Your task to perform on an android device: change notification settings in the gmail app Image 0: 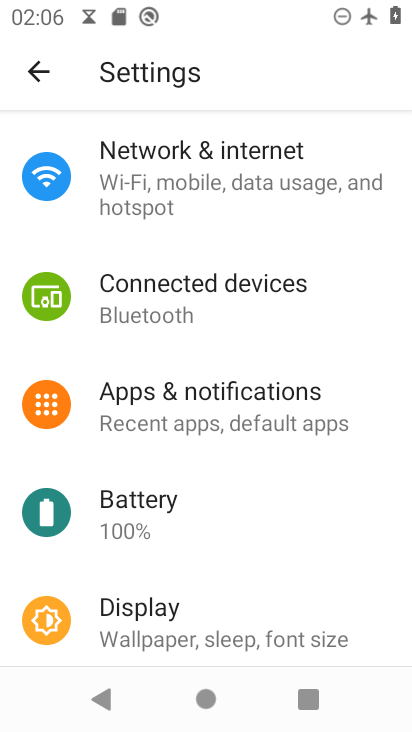
Step 0: press home button
Your task to perform on an android device: change notification settings in the gmail app Image 1: 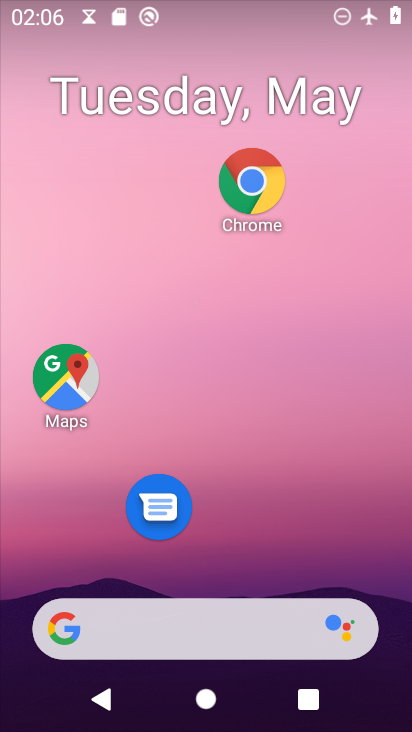
Step 1: drag from (299, 542) to (307, 249)
Your task to perform on an android device: change notification settings in the gmail app Image 2: 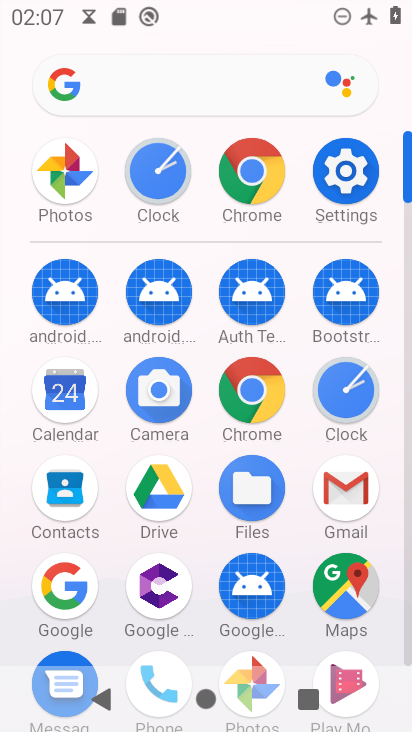
Step 2: click (336, 478)
Your task to perform on an android device: change notification settings in the gmail app Image 3: 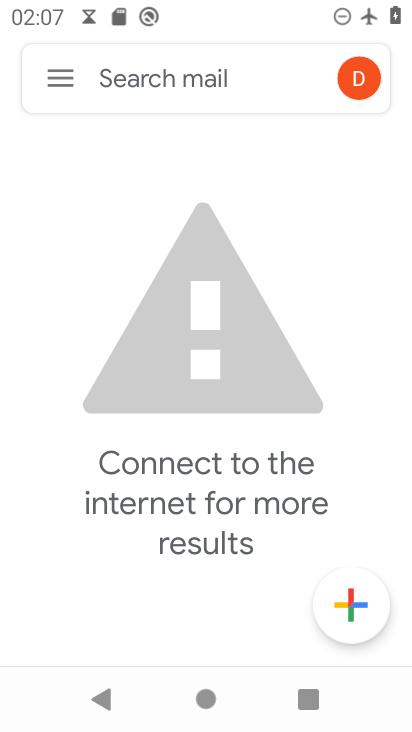
Step 3: click (59, 85)
Your task to perform on an android device: change notification settings in the gmail app Image 4: 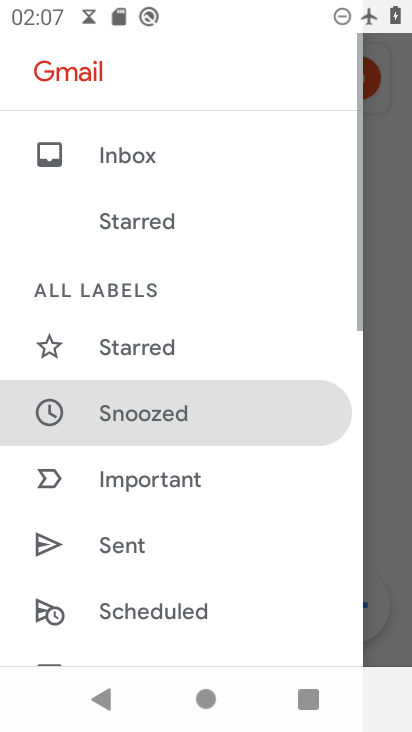
Step 4: drag from (181, 609) to (186, 213)
Your task to perform on an android device: change notification settings in the gmail app Image 5: 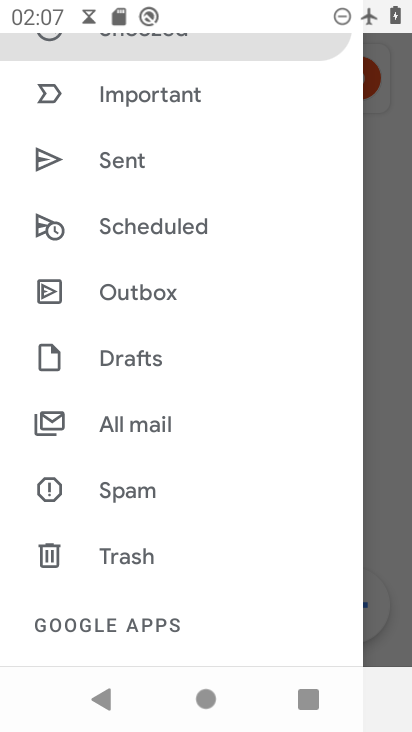
Step 5: drag from (169, 590) to (184, 123)
Your task to perform on an android device: change notification settings in the gmail app Image 6: 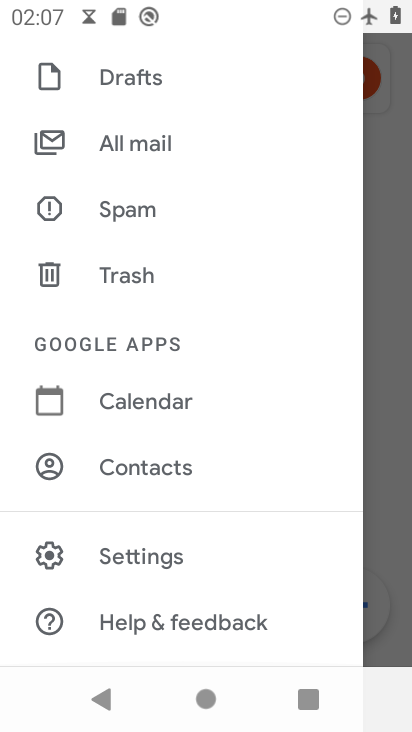
Step 6: click (139, 558)
Your task to perform on an android device: change notification settings in the gmail app Image 7: 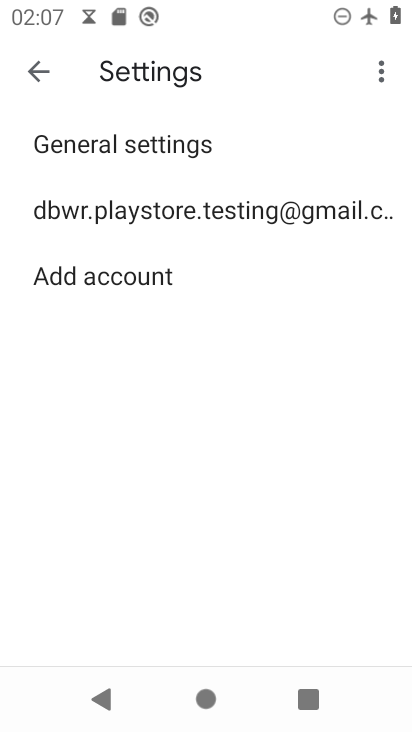
Step 7: click (105, 222)
Your task to perform on an android device: change notification settings in the gmail app Image 8: 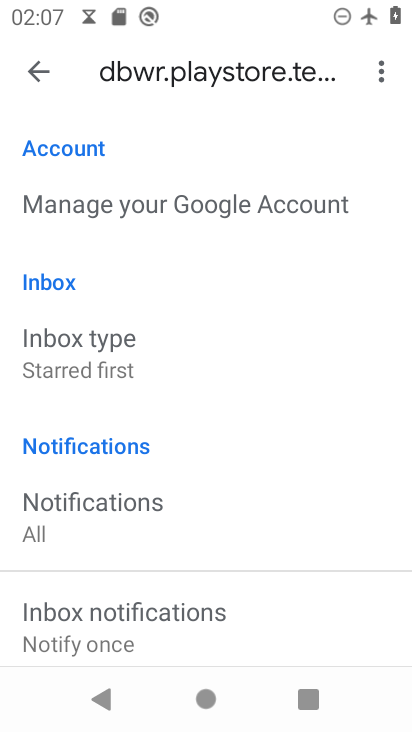
Step 8: click (118, 536)
Your task to perform on an android device: change notification settings in the gmail app Image 9: 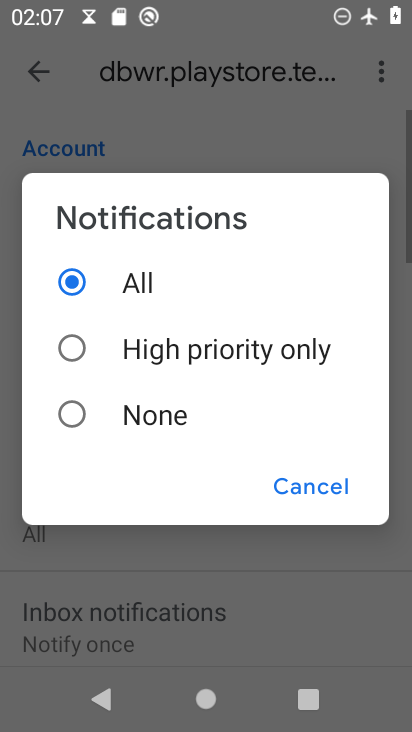
Step 9: click (168, 396)
Your task to perform on an android device: change notification settings in the gmail app Image 10: 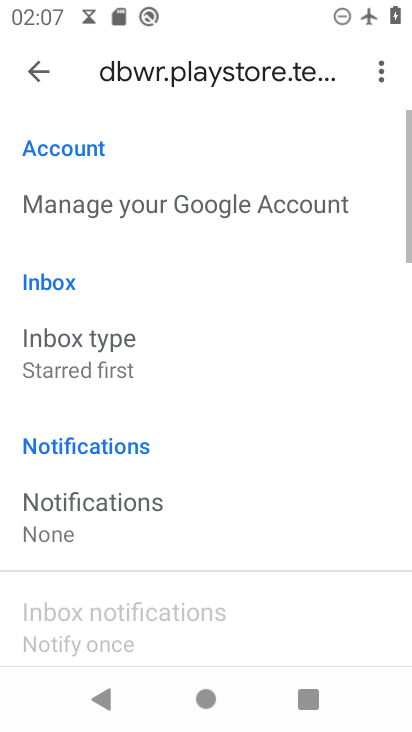
Step 10: task complete